Your task to perform on an android device: Turn off the flashlight Image 0: 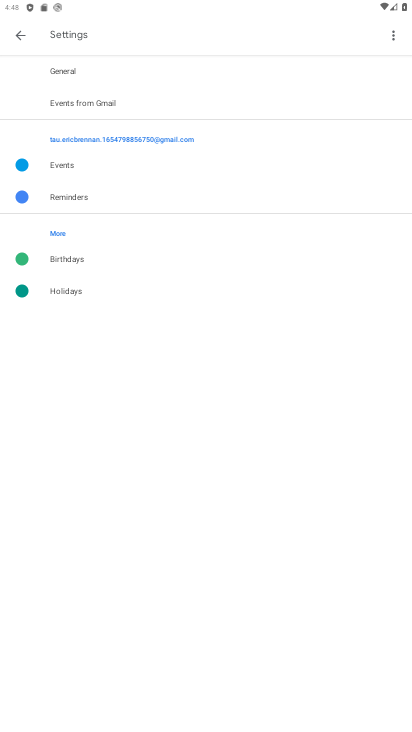
Step 0: press home button
Your task to perform on an android device: Turn off the flashlight Image 1: 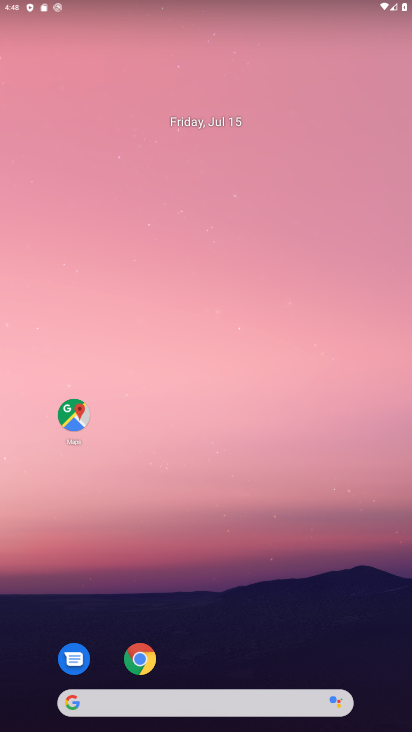
Step 1: drag from (202, 641) to (392, 42)
Your task to perform on an android device: Turn off the flashlight Image 2: 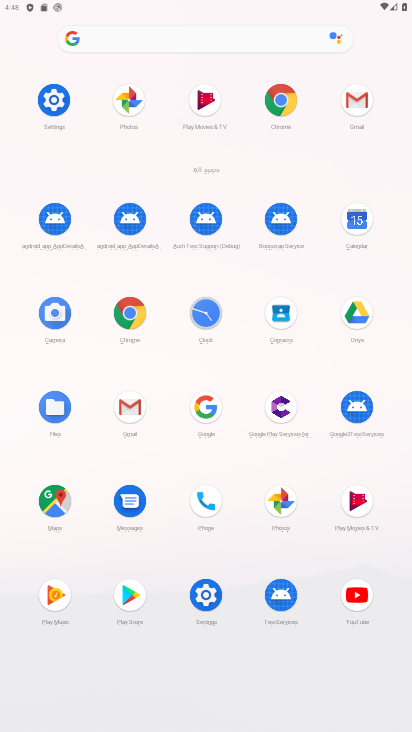
Step 2: click (55, 94)
Your task to perform on an android device: Turn off the flashlight Image 3: 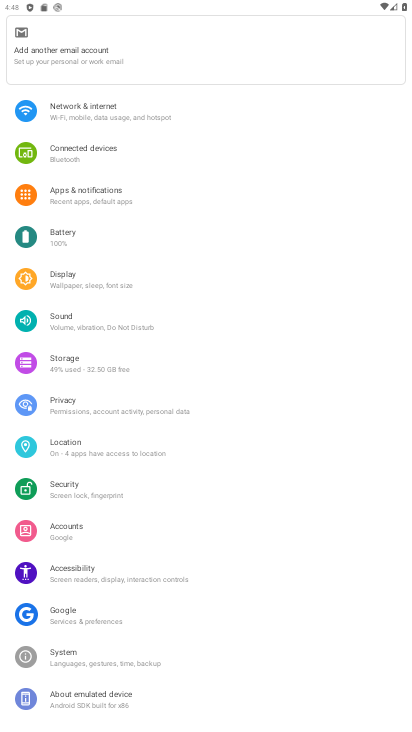
Step 3: task complete